Your task to perform on an android device: turn off airplane mode Image 0: 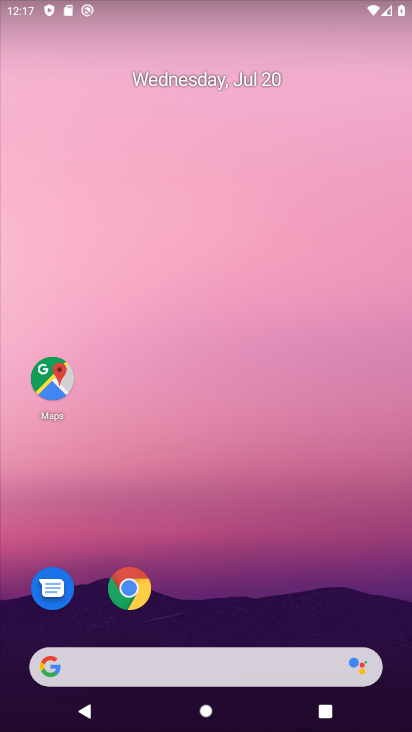
Step 0: drag from (343, 603) to (302, 132)
Your task to perform on an android device: turn off airplane mode Image 1: 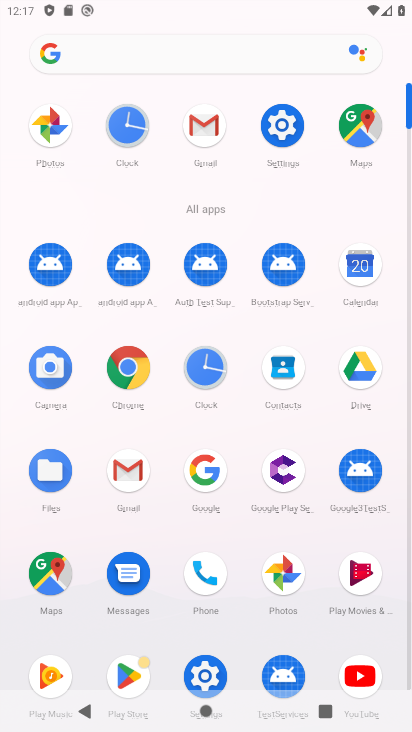
Step 1: click (281, 116)
Your task to perform on an android device: turn off airplane mode Image 2: 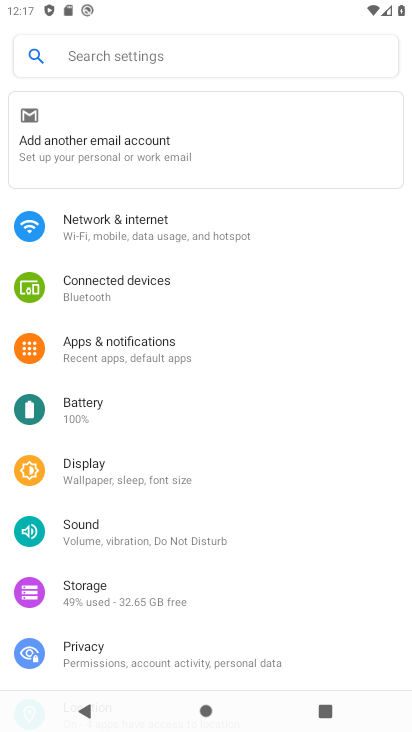
Step 2: click (171, 227)
Your task to perform on an android device: turn off airplane mode Image 3: 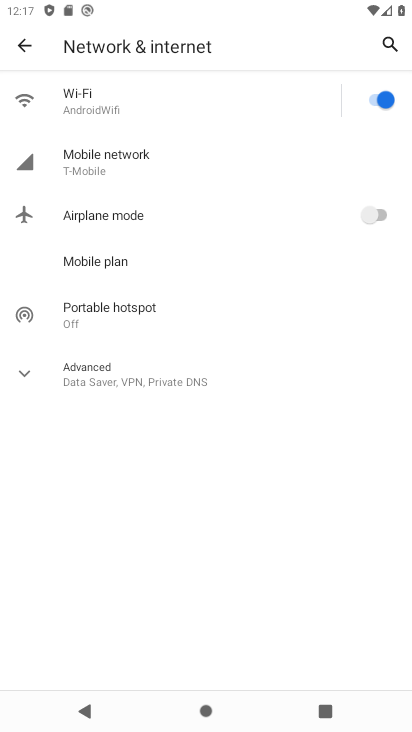
Step 3: task complete